Your task to perform on an android device: allow notifications from all sites in the chrome app Image 0: 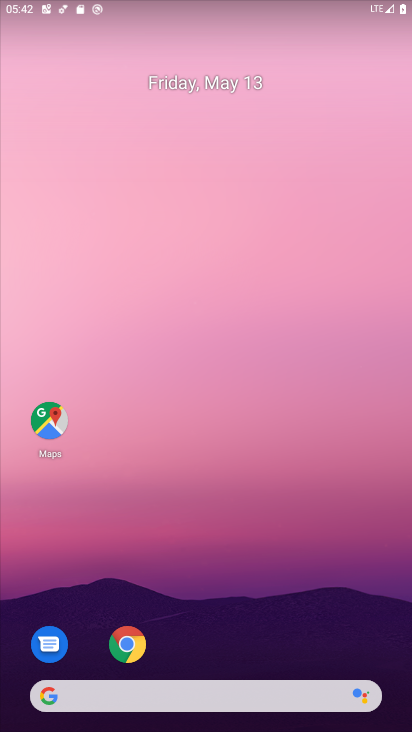
Step 0: drag from (227, 636) to (267, 33)
Your task to perform on an android device: allow notifications from all sites in the chrome app Image 1: 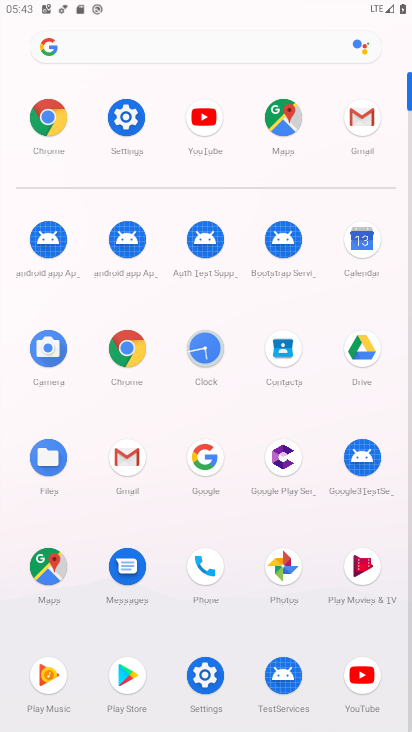
Step 1: click (128, 354)
Your task to perform on an android device: allow notifications from all sites in the chrome app Image 2: 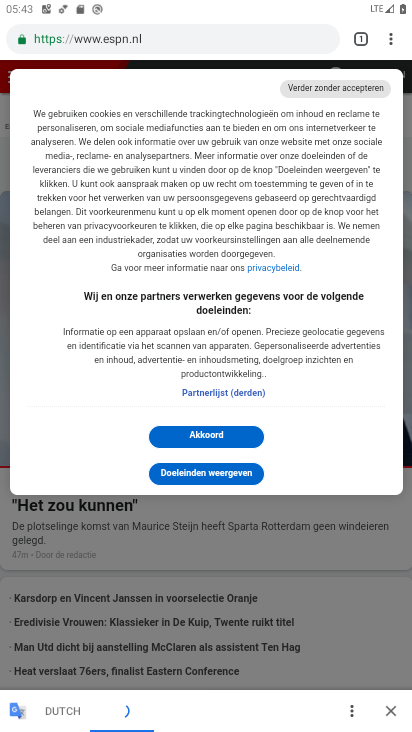
Step 2: click (394, 42)
Your task to perform on an android device: allow notifications from all sites in the chrome app Image 3: 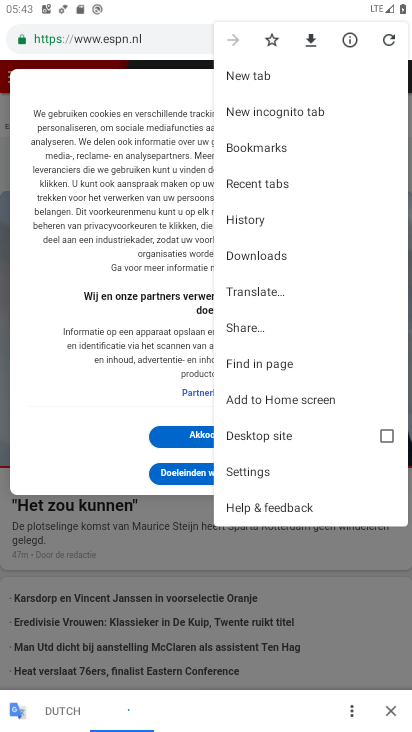
Step 3: click (258, 478)
Your task to perform on an android device: allow notifications from all sites in the chrome app Image 4: 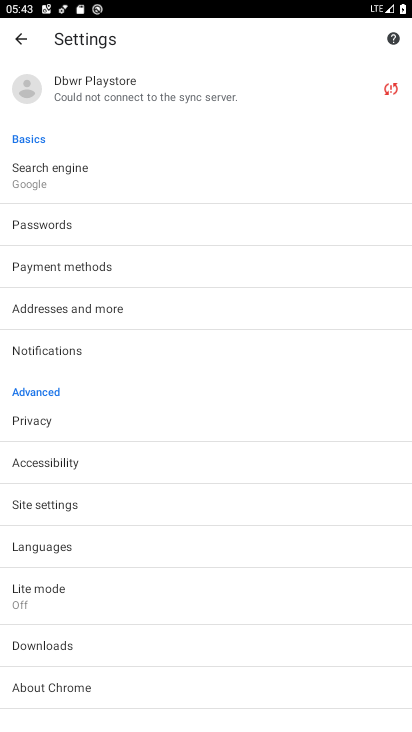
Step 4: click (68, 359)
Your task to perform on an android device: allow notifications from all sites in the chrome app Image 5: 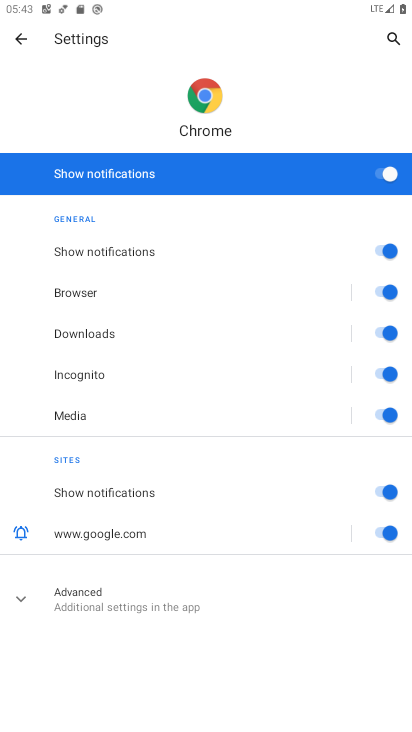
Step 5: task complete